Your task to perform on an android device: Go to Reddit.com Image 0: 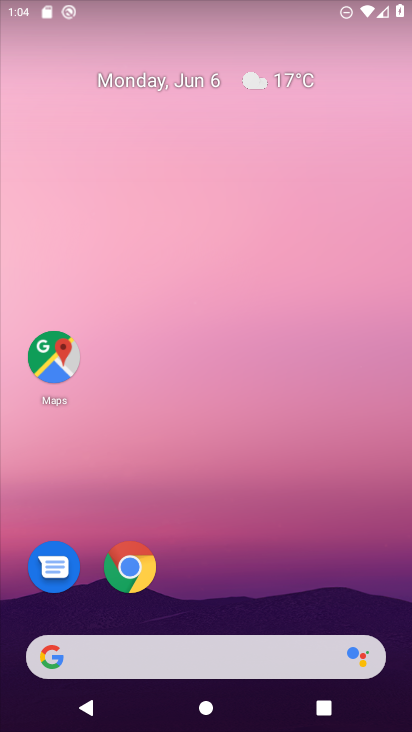
Step 0: click (134, 568)
Your task to perform on an android device: Go to Reddit.com Image 1: 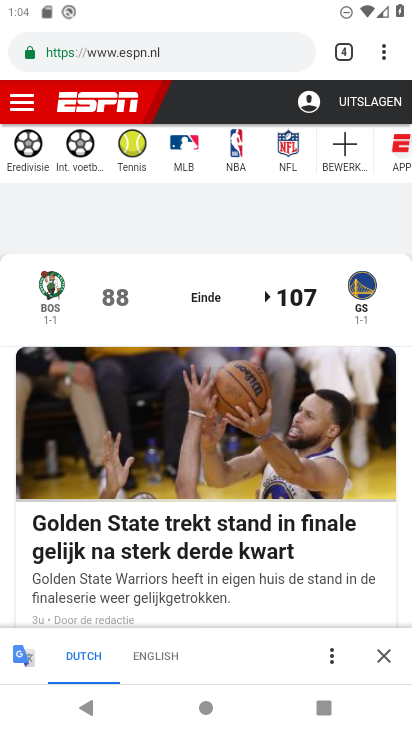
Step 1: click (383, 57)
Your task to perform on an android device: Go to Reddit.com Image 2: 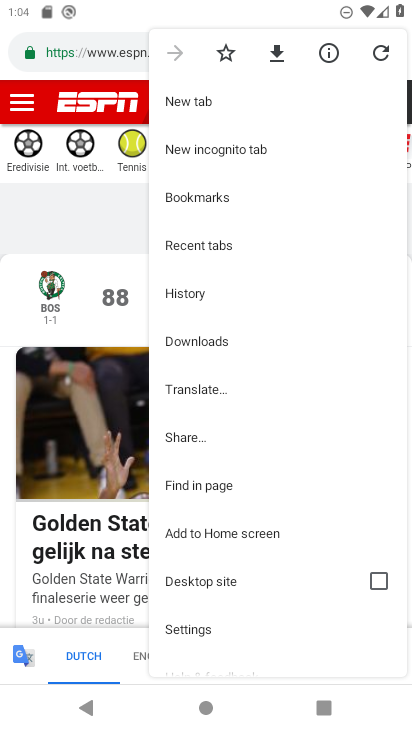
Step 2: click (191, 102)
Your task to perform on an android device: Go to Reddit.com Image 3: 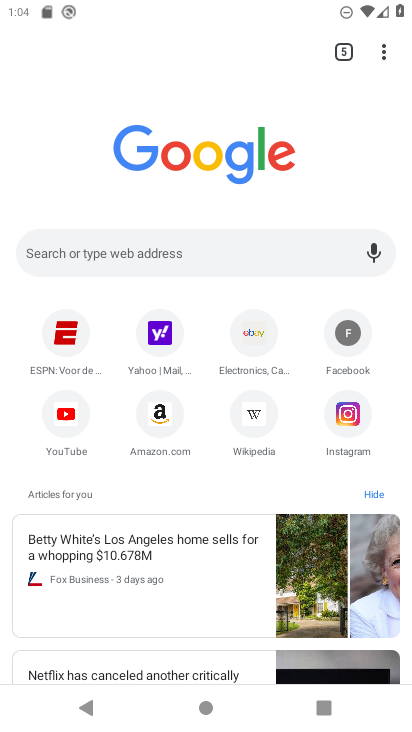
Step 3: click (248, 259)
Your task to perform on an android device: Go to Reddit.com Image 4: 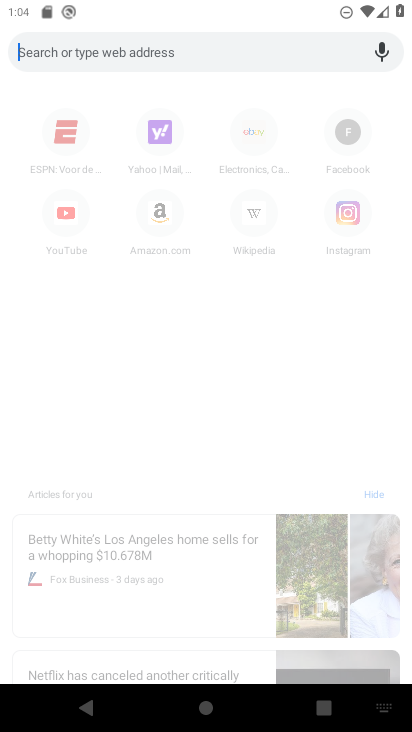
Step 4: type "REddit.com"
Your task to perform on an android device: Go to Reddit.com Image 5: 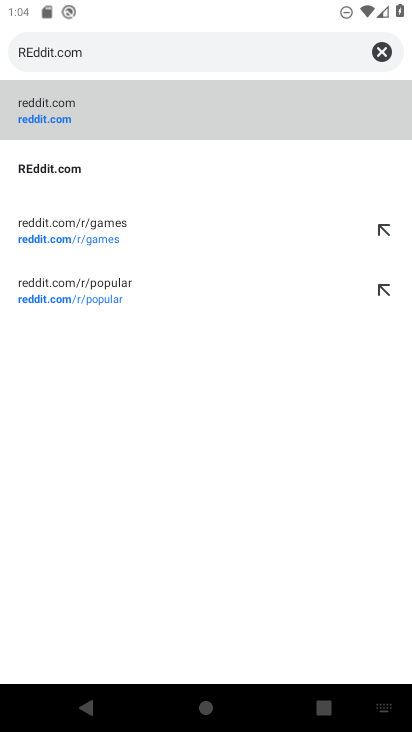
Step 5: click (77, 101)
Your task to perform on an android device: Go to Reddit.com Image 6: 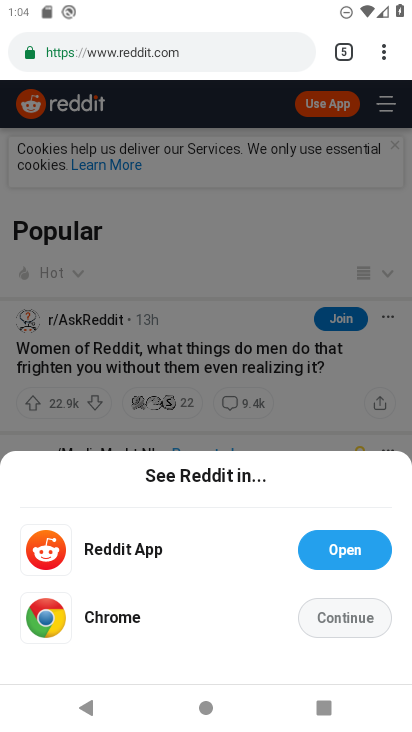
Step 6: task complete